Your task to perform on an android device: delete location history Image 0: 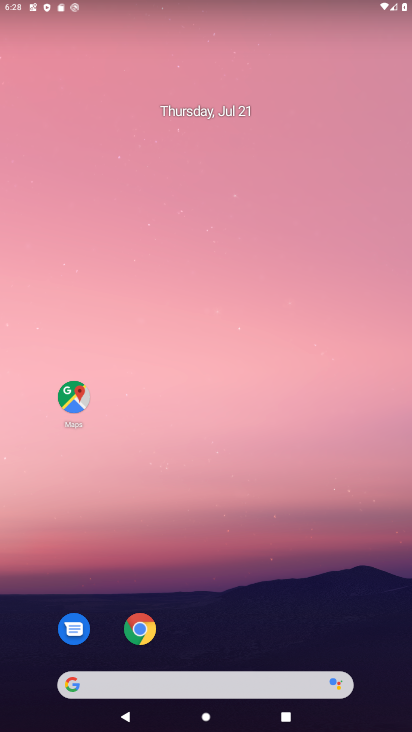
Step 0: click (73, 395)
Your task to perform on an android device: delete location history Image 1: 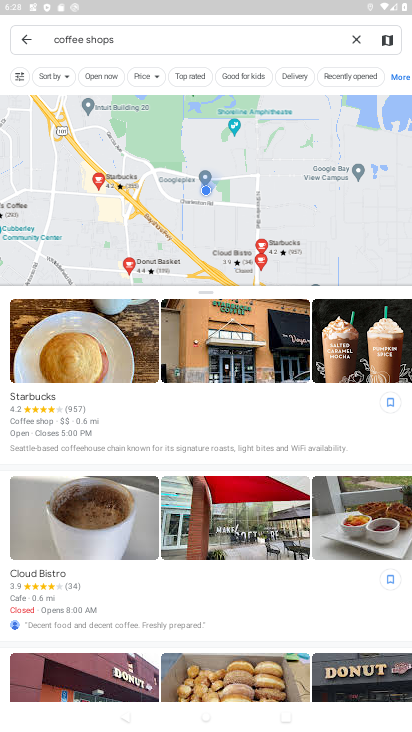
Step 1: press back button
Your task to perform on an android device: delete location history Image 2: 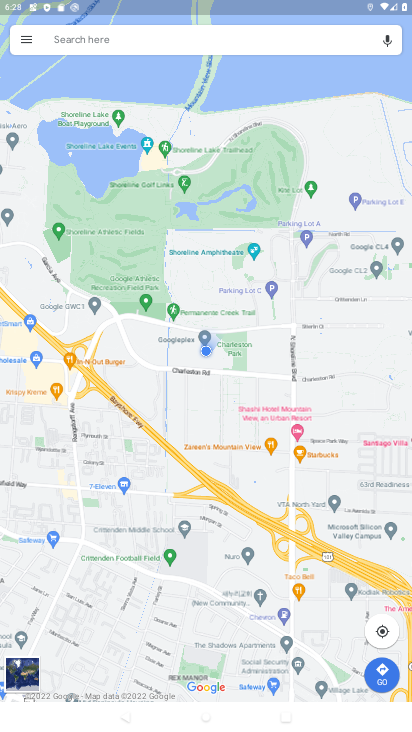
Step 2: click (28, 40)
Your task to perform on an android device: delete location history Image 3: 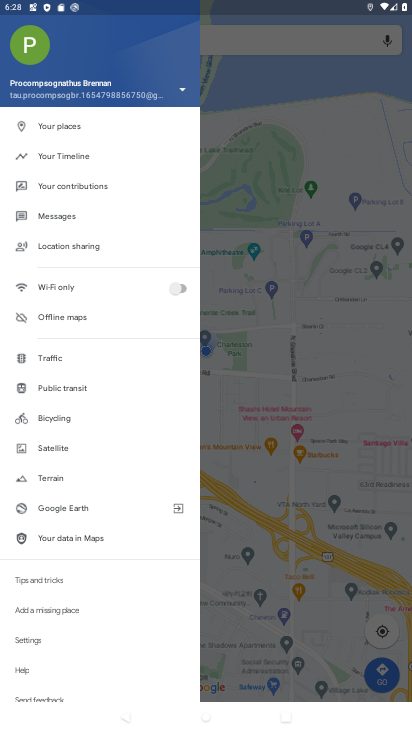
Step 3: click (40, 639)
Your task to perform on an android device: delete location history Image 4: 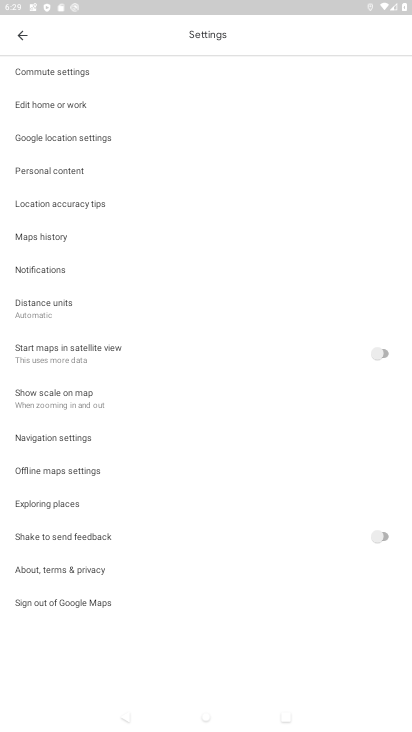
Step 4: click (73, 176)
Your task to perform on an android device: delete location history Image 5: 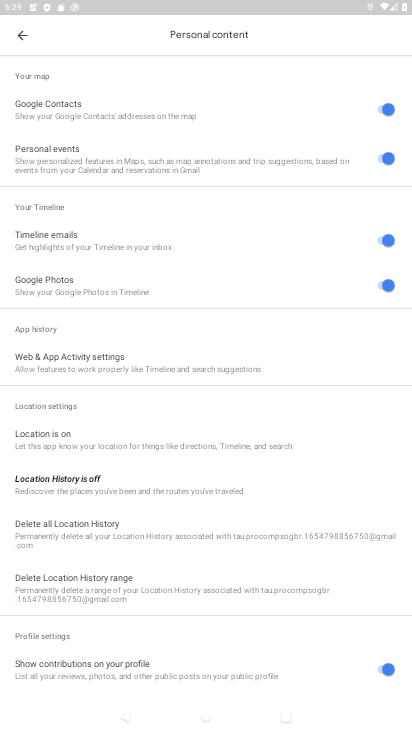
Step 5: click (102, 533)
Your task to perform on an android device: delete location history Image 6: 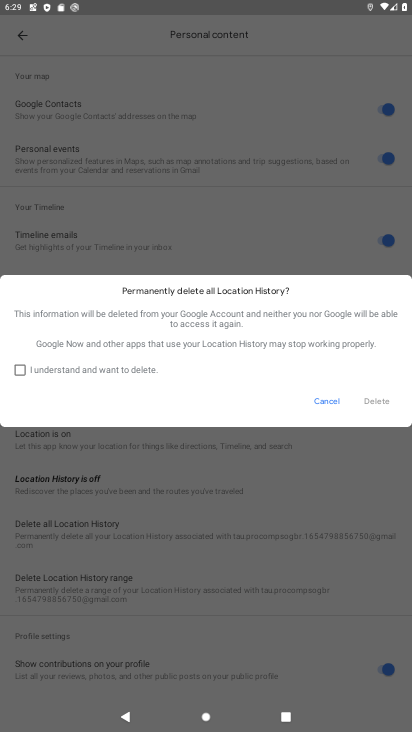
Step 6: click (18, 367)
Your task to perform on an android device: delete location history Image 7: 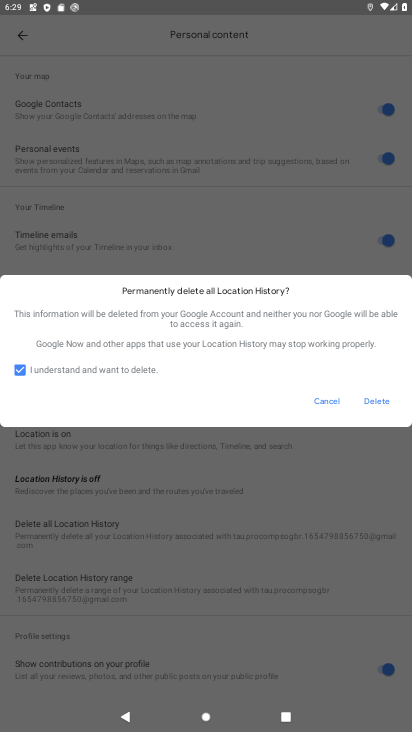
Step 7: click (376, 399)
Your task to perform on an android device: delete location history Image 8: 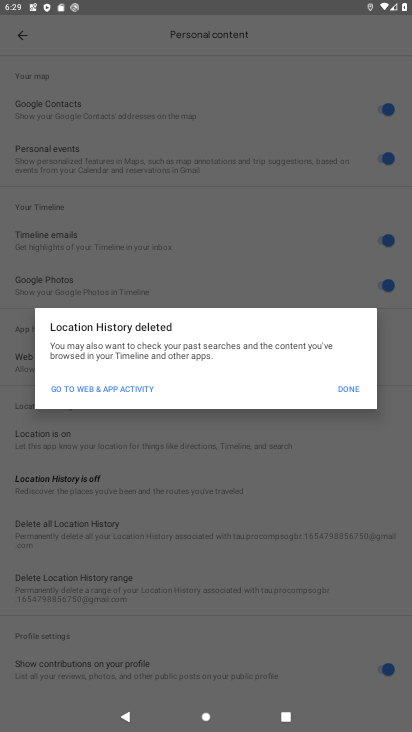
Step 8: click (352, 382)
Your task to perform on an android device: delete location history Image 9: 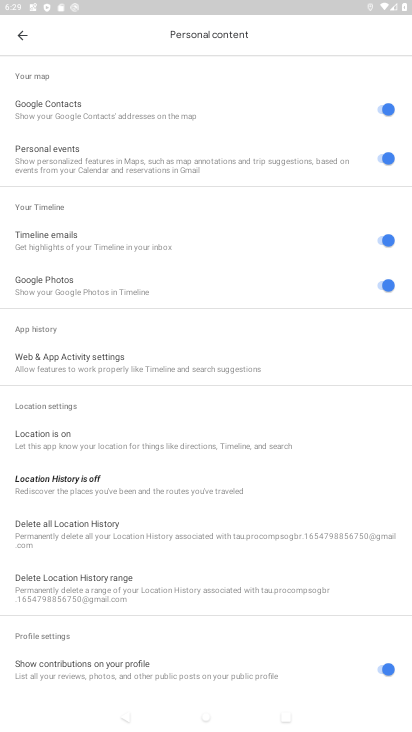
Step 9: task complete